Your task to perform on an android device: Check the news Image 0: 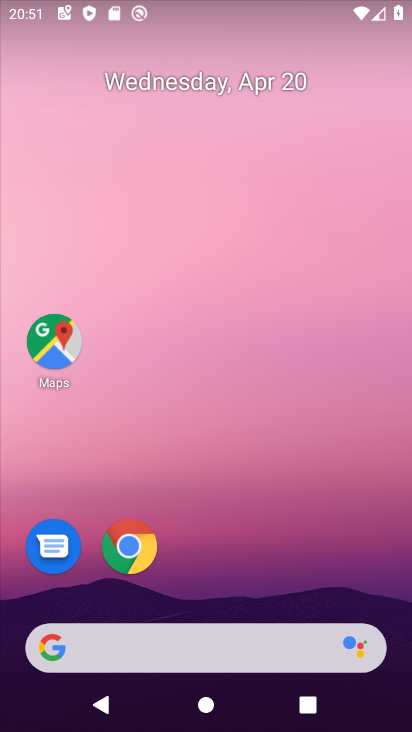
Step 0: drag from (341, 560) to (280, 100)
Your task to perform on an android device: Check the news Image 1: 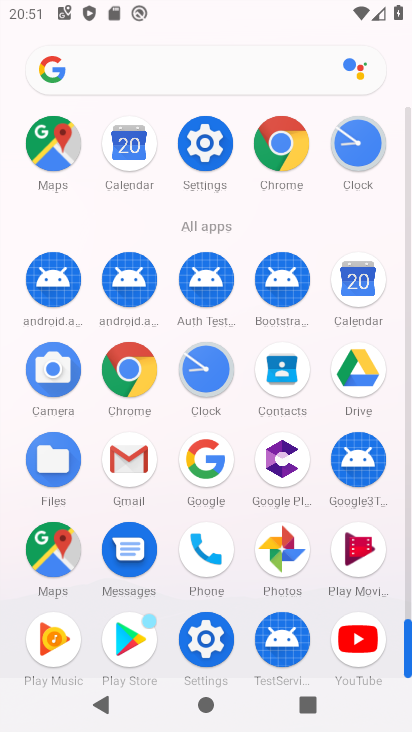
Step 1: task complete